Your task to perform on an android device: open app "Booking.com: Hotels and more" (install if not already installed) and enter user name: "misting@outlook.com" and password: "blandly" Image 0: 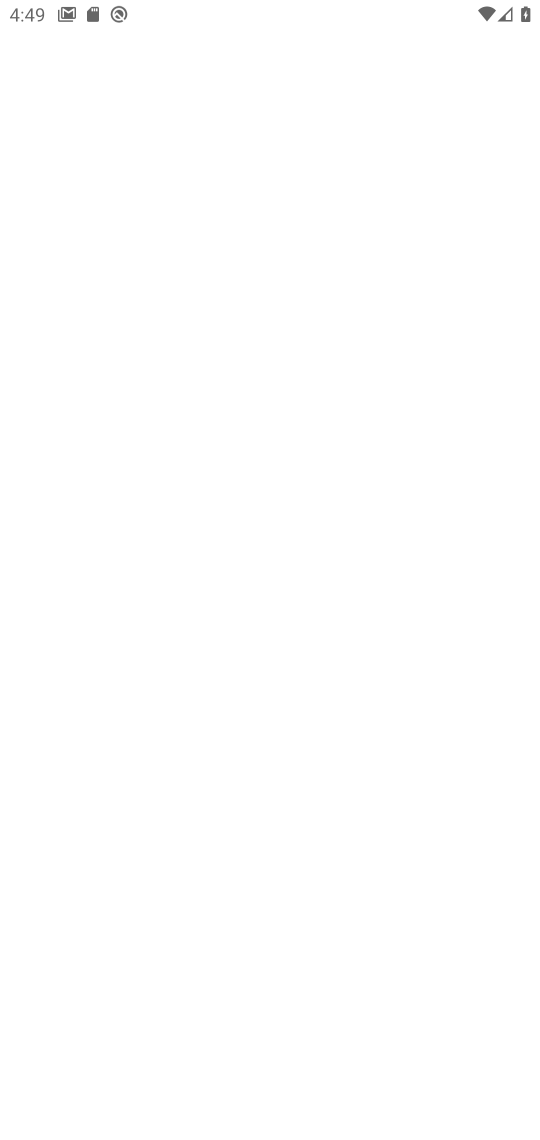
Step 0: press home button
Your task to perform on an android device: open app "Booking.com: Hotels and more" (install if not already installed) and enter user name: "misting@outlook.com" and password: "blandly" Image 1: 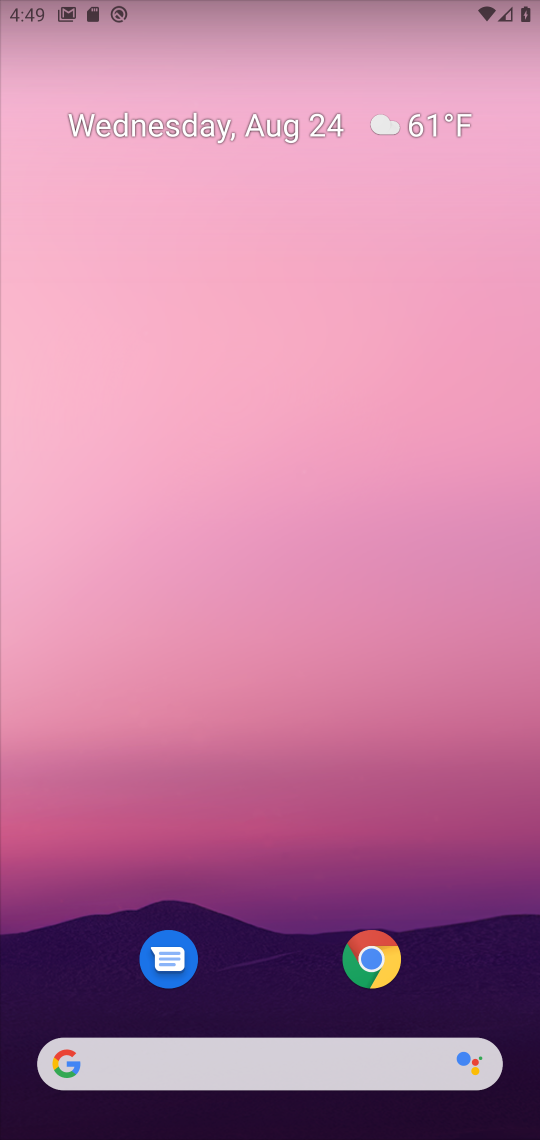
Step 1: drag from (254, 856) to (243, 361)
Your task to perform on an android device: open app "Booking.com: Hotels and more" (install if not already installed) and enter user name: "misting@outlook.com" and password: "blandly" Image 2: 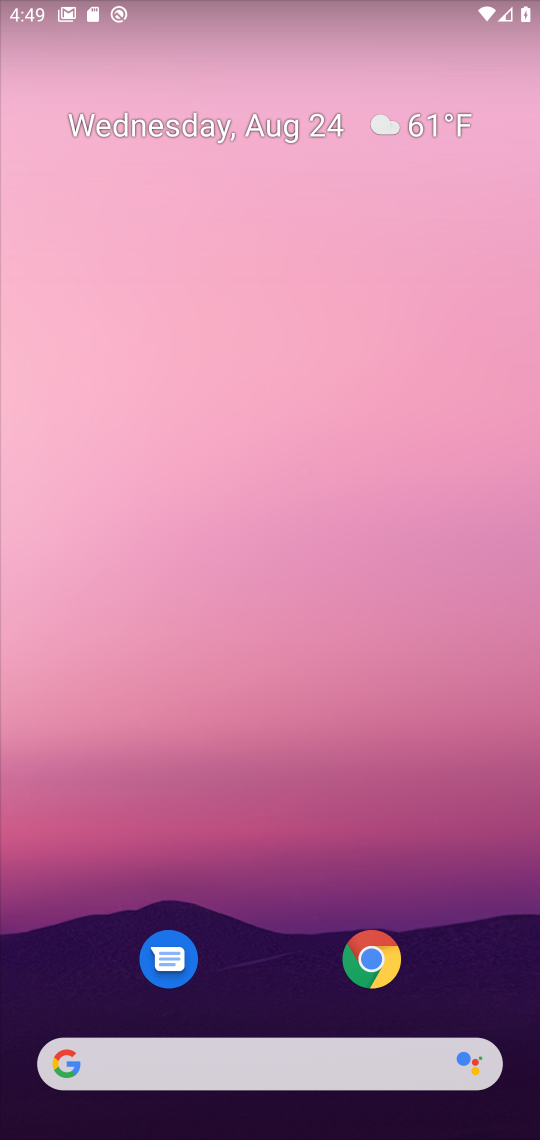
Step 2: drag from (240, 899) to (236, 289)
Your task to perform on an android device: open app "Booking.com: Hotels and more" (install if not already installed) and enter user name: "misting@outlook.com" and password: "blandly" Image 3: 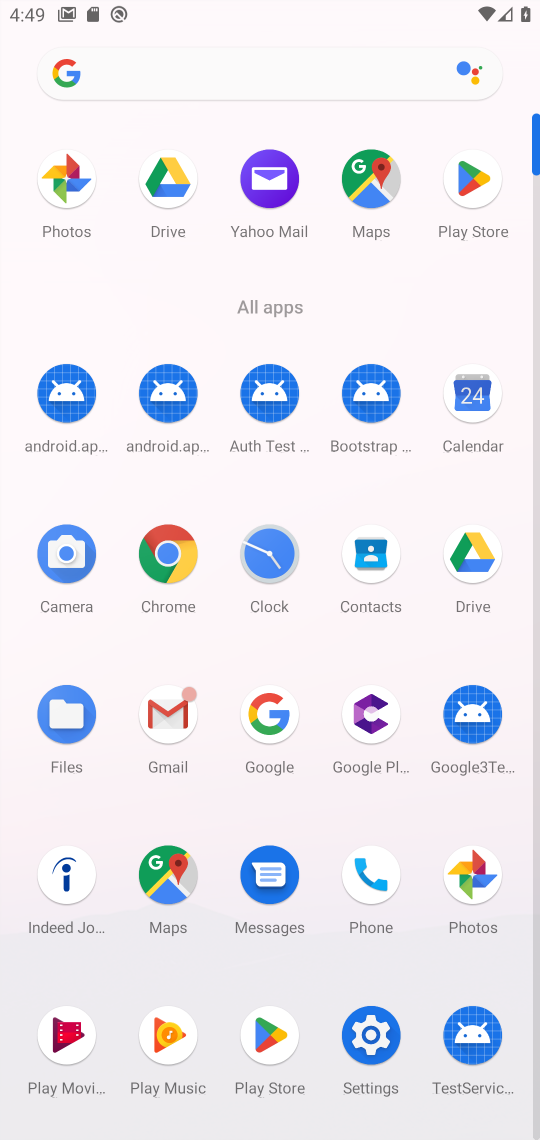
Step 3: click (453, 194)
Your task to perform on an android device: open app "Booking.com: Hotels and more" (install if not already installed) and enter user name: "misting@outlook.com" and password: "blandly" Image 4: 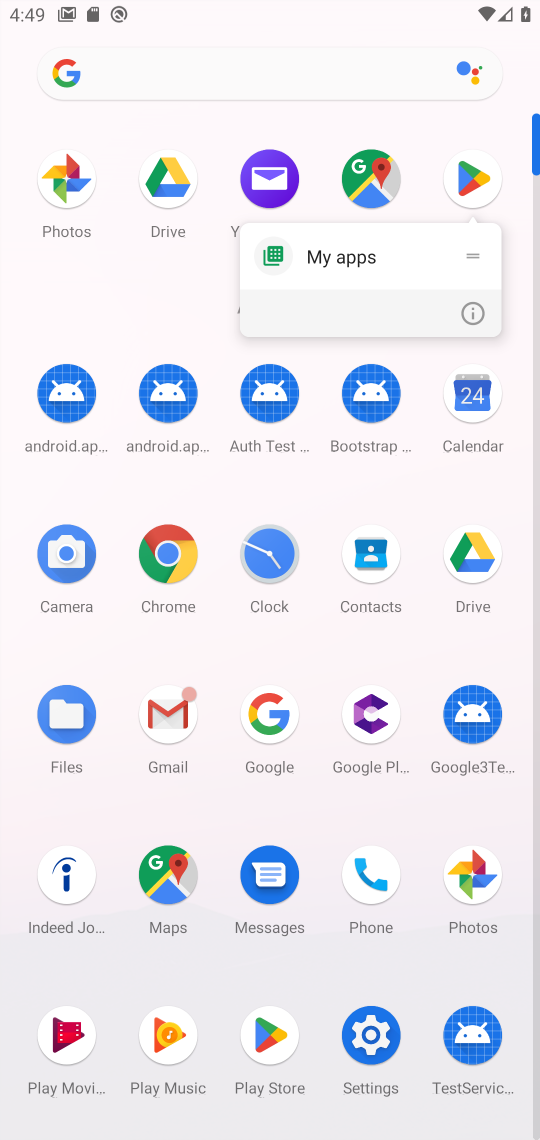
Step 4: click (459, 195)
Your task to perform on an android device: open app "Booking.com: Hotels and more" (install if not already installed) and enter user name: "misting@outlook.com" and password: "blandly" Image 5: 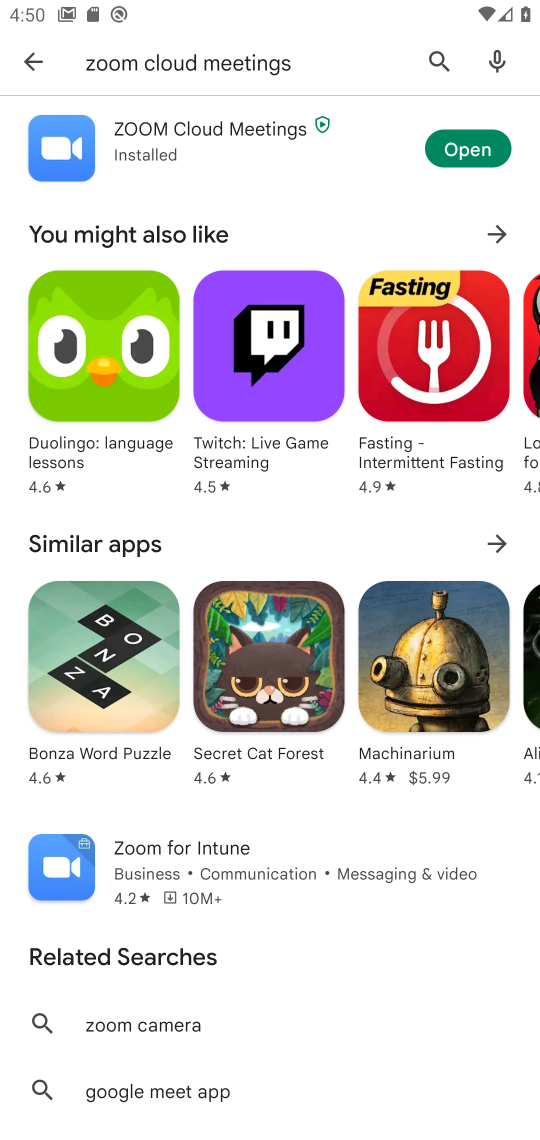
Step 5: click (468, 148)
Your task to perform on an android device: open app "Booking.com: Hotels and more" (install if not already installed) and enter user name: "misting@outlook.com" and password: "blandly" Image 6: 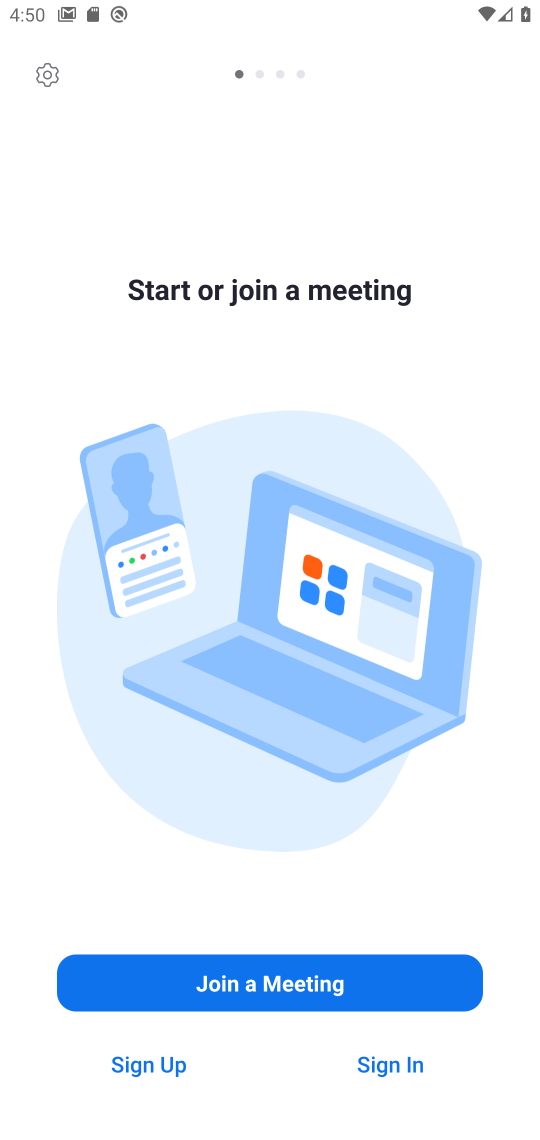
Step 6: task complete